Your task to perform on an android device: Open the phone app and click the voicemail tab. Image 0: 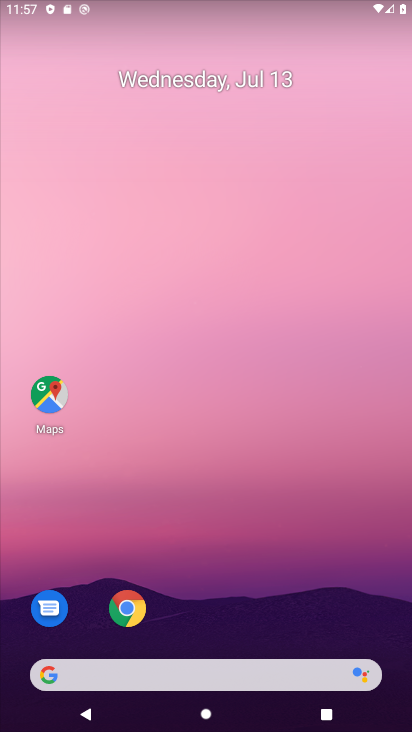
Step 0: drag from (237, 536) to (156, 62)
Your task to perform on an android device: Open the phone app and click the voicemail tab. Image 1: 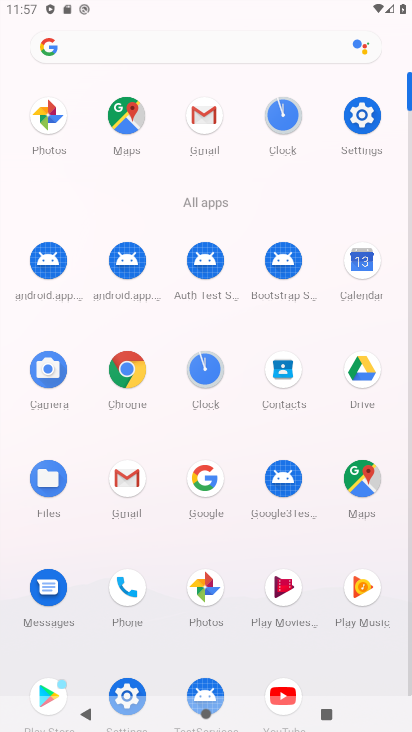
Step 1: click (128, 584)
Your task to perform on an android device: Open the phone app and click the voicemail tab. Image 2: 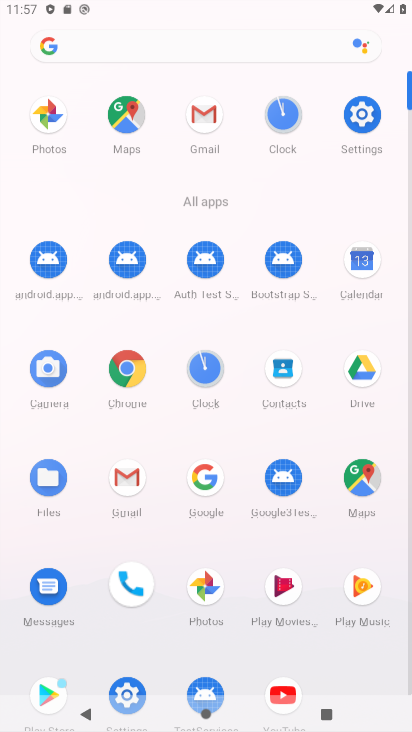
Step 2: click (128, 584)
Your task to perform on an android device: Open the phone app and click the voicemail tab. Image 3: 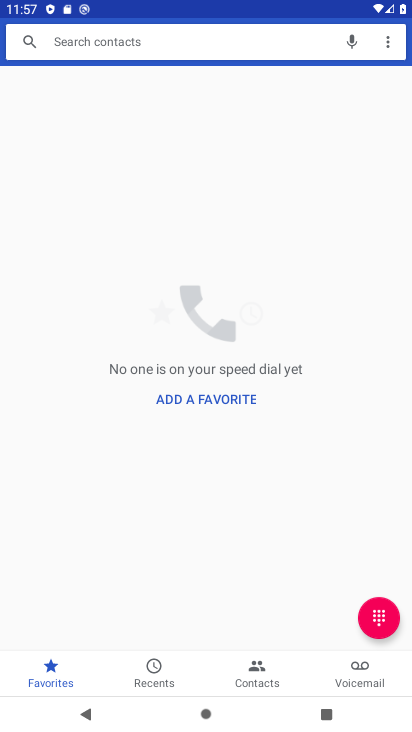
Step 3: click (365, 679)
Your task to perform on an android device: Open the phone app and click the voicemail tab. Image 4: 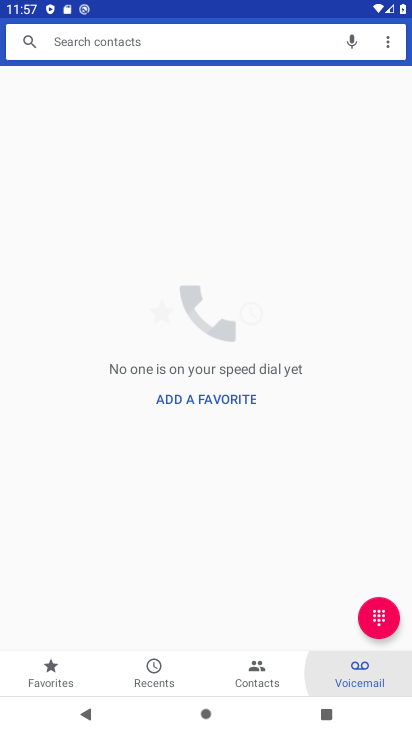
Step 4: click (365, 679)
Your task to perform on an android device: Open the phone app and click the voicemail tab. Image 5: 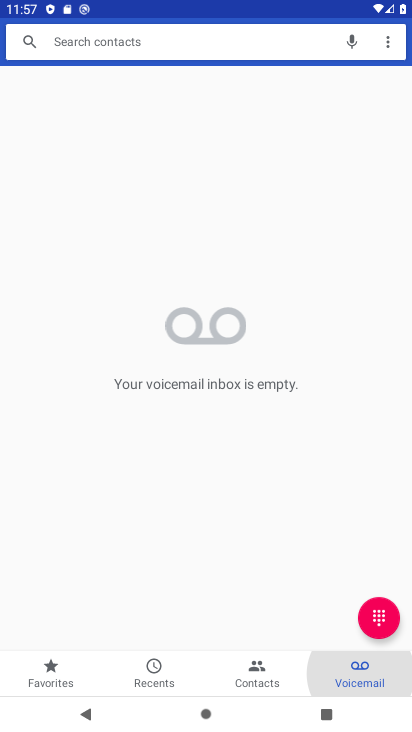
Step 5: click (366, 680)
Your task to perform on an android device: Open the phone app and click the voicemail tab. Image 6: 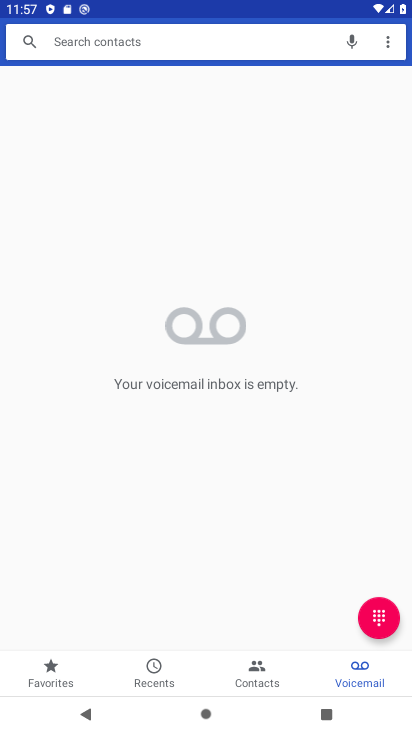
Step 6: task complete